Your task to perform on an android device: Search for vegetarian restaurants on Maps Image 0: 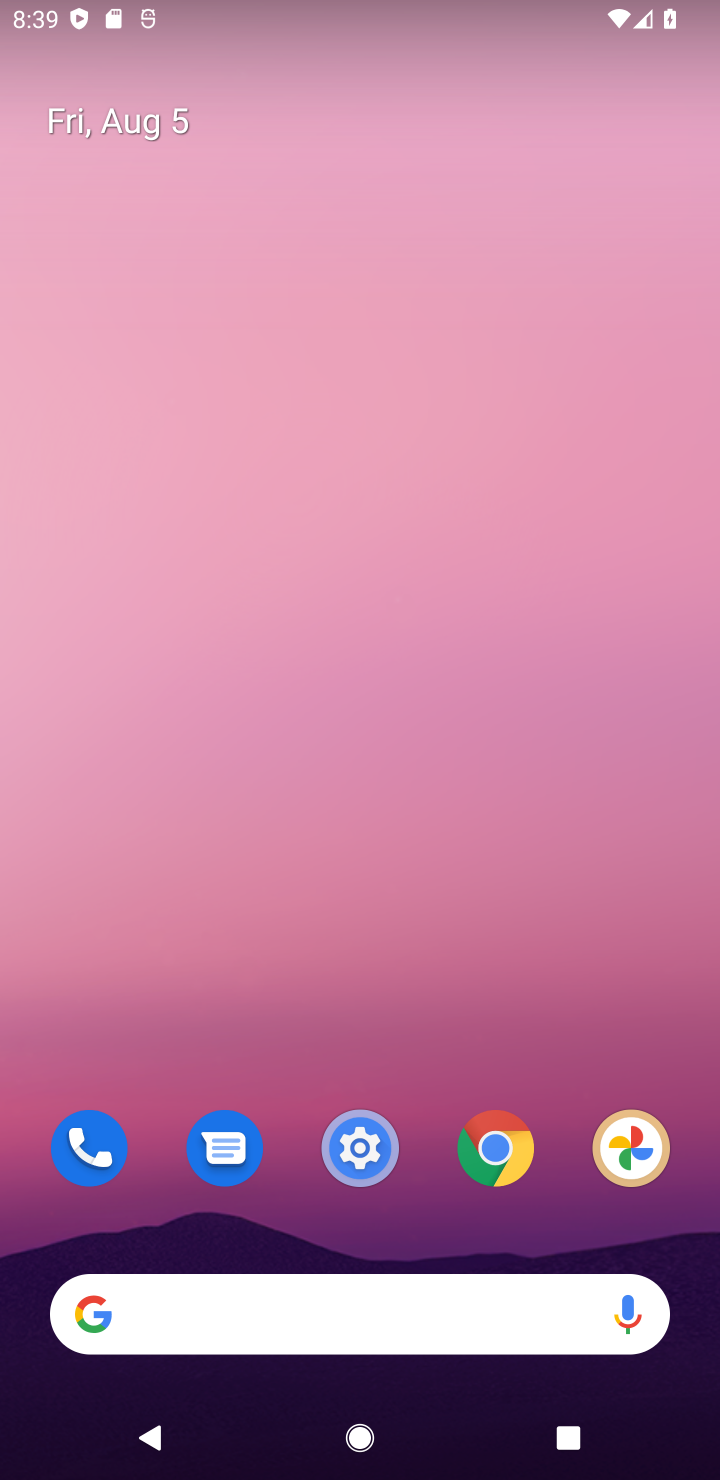
Step 0: task complete